Your task to perform on an android device: Find coffee shops on Maps Image 0: 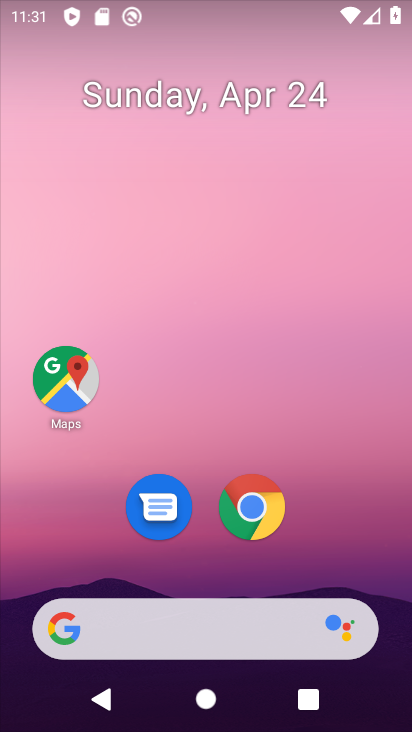
Step 0: drag from (300, 523) to (243, 71)
Your task to perform on an android device: Find coffee shops on Maps Image 1: 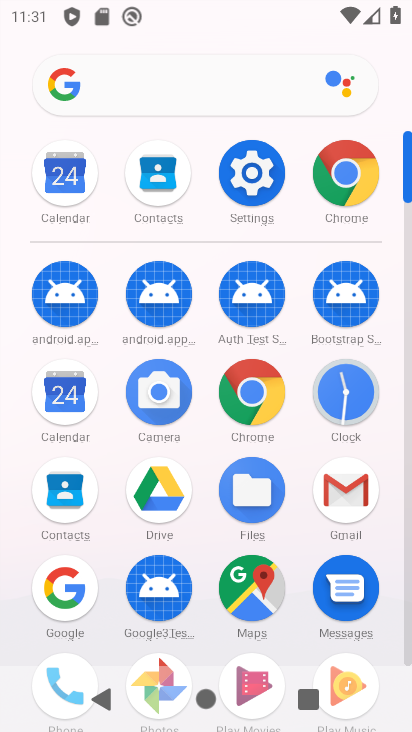
Step 1: drag from (10, 549) to (5, 315)
Your task to perform on an android device: Find coffee shops on Maps Image 2: 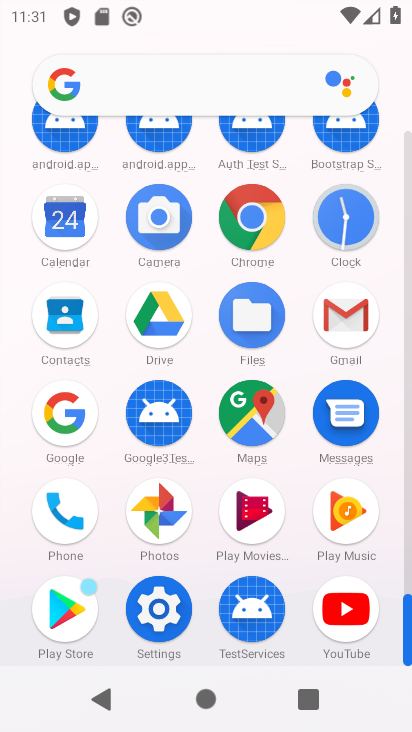
Step 2: click (344, 303)
Your task to perform on an android device: Find coffee shops on Maps Image 3: 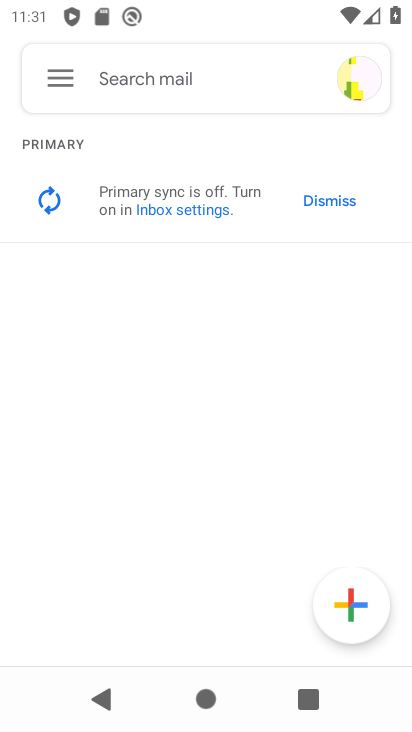
Step 3: click (59, 74)
Your task to perform on an android device: Find coffee shops on Maps Image 4: 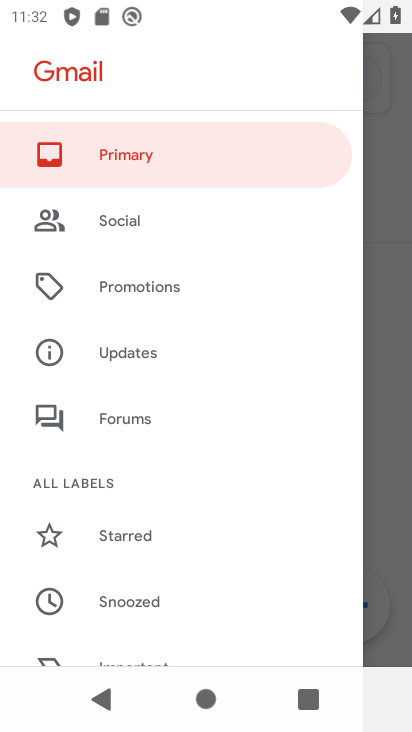
Step 4: press back button
Your task to perform on an android device: Find coffee shops on Maps Image 5: 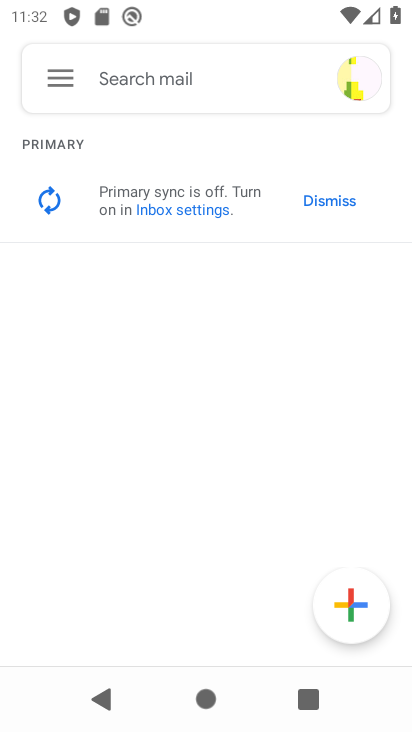
Step 5: press back button
Your task to perform on an android device: Find coffee shops on Maps Image 6: 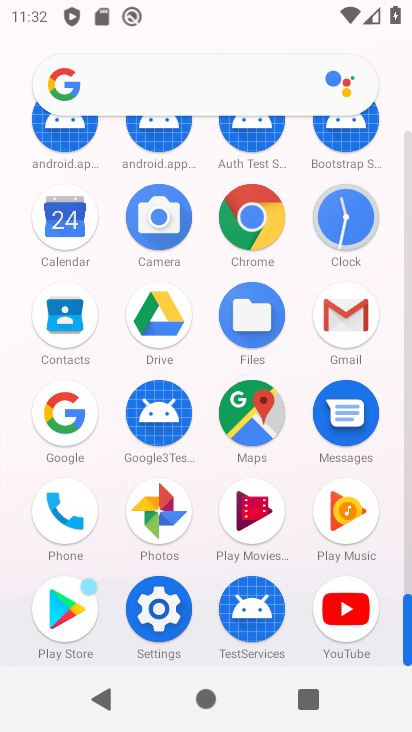
Step 6: click (256, 407)
Your task to perform on an android device: Find coffee shops on Maps Image 7: 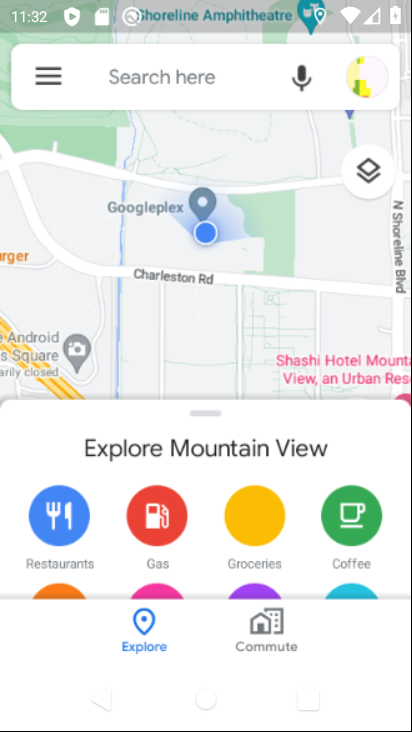
Step 7: click (222, 74)
Your task to perform on an android device: Find coffee shops on Maps Image 8: 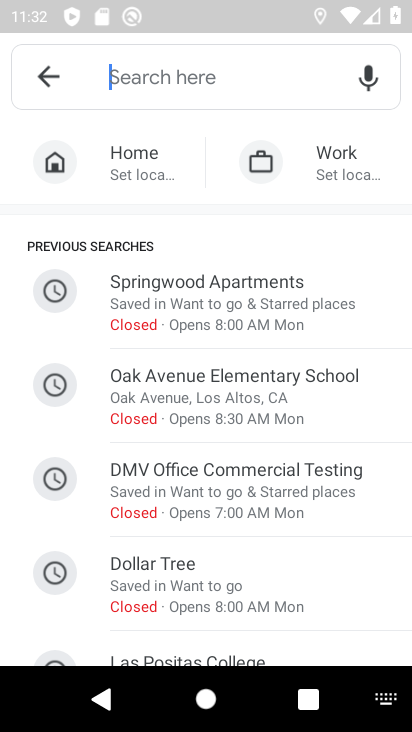
Step 8: type "coffee shops"
Your task to perform on an android device: Find coffee shops on Maps Image 9: 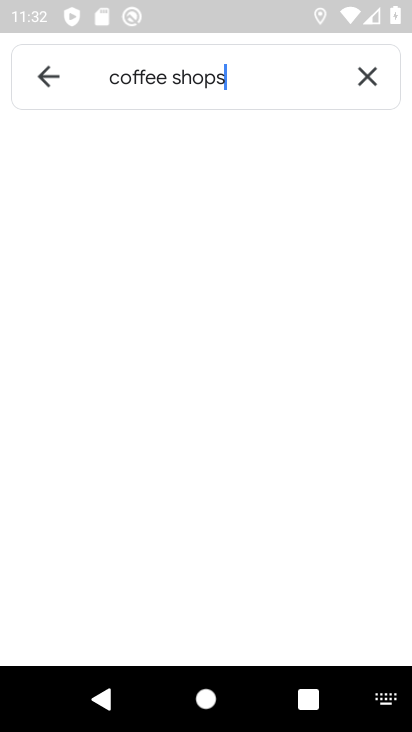
Step 9: type ""
Your task to perform on an android device: Find coffee shops on Maps Image 10: 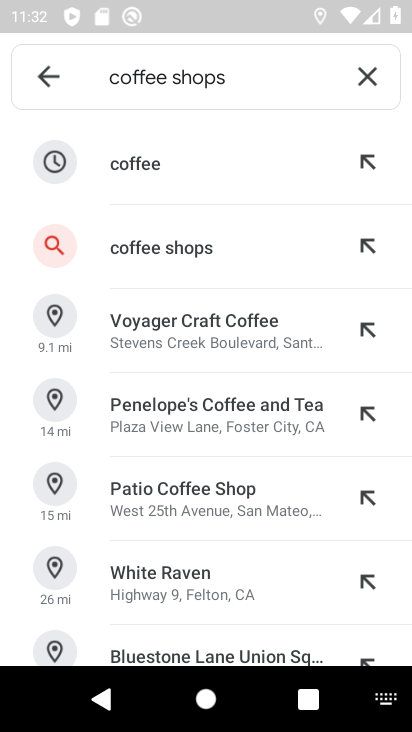
Step 10: click (189, 238)
Your task to perform on an android device: Find coffee shops on Maps Image 11: 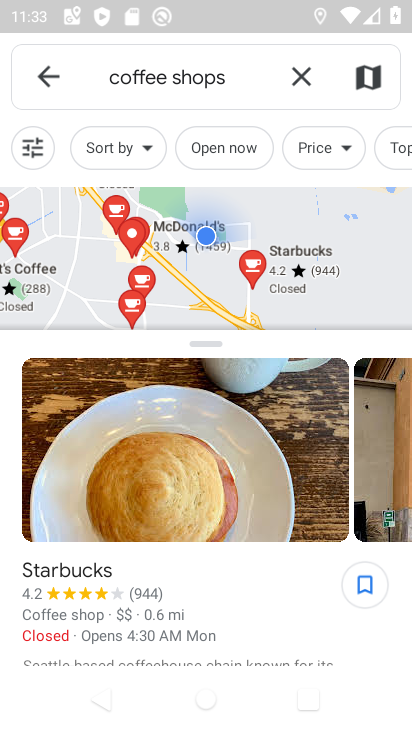
Step 11: task complete